Your task to perform on an android device: remove spam from my inbox in the gmail app Image 0: 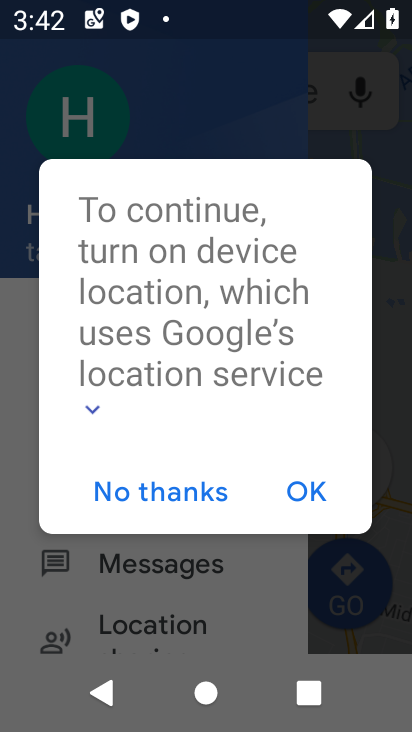
Step 0: press home button
Your task to perform on an android device: remove spam from my inbox in the gmail app Image 1: 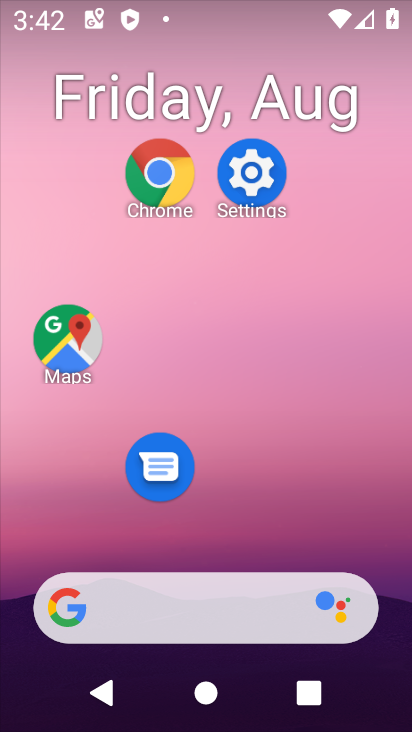
Step 1: drag from (250, 515) to (203, 13)
Your task to perform on an android device: remove spam from my inbox in the gmail app Image 2: 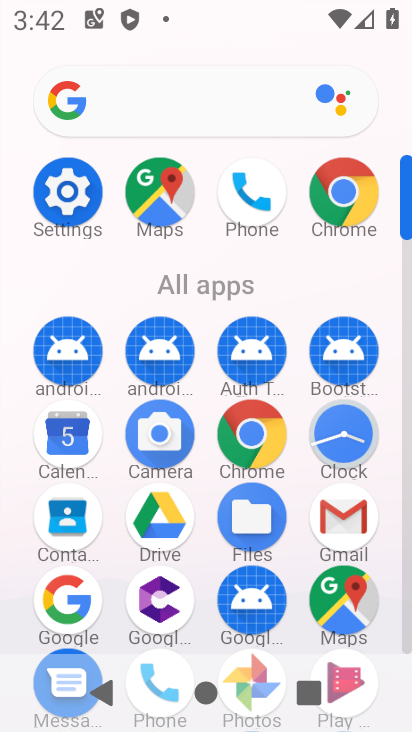
Step 2: click (344, 509)
Your task to perform on an android device: remove spam from my inbox in the gmail app Image 3: 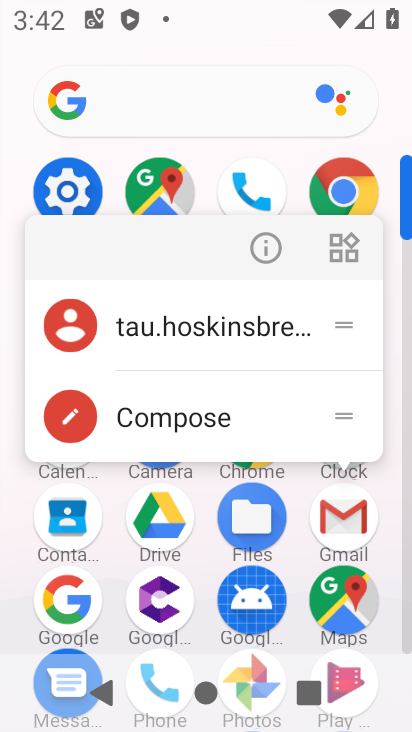
Step 3: click (346, 524)
Your task to perform on an android device: remove spam from my inbox in the gmail app Image 4: 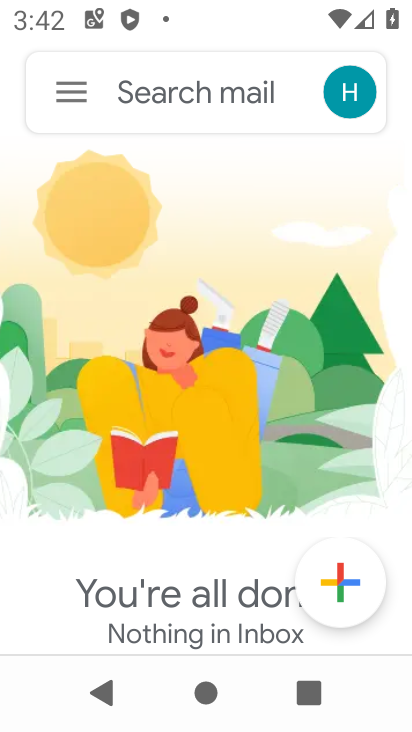
Step 4: click (65, 100)
Your task to perform on an android device: remove spam from my inbox in the gmail app Image 5: 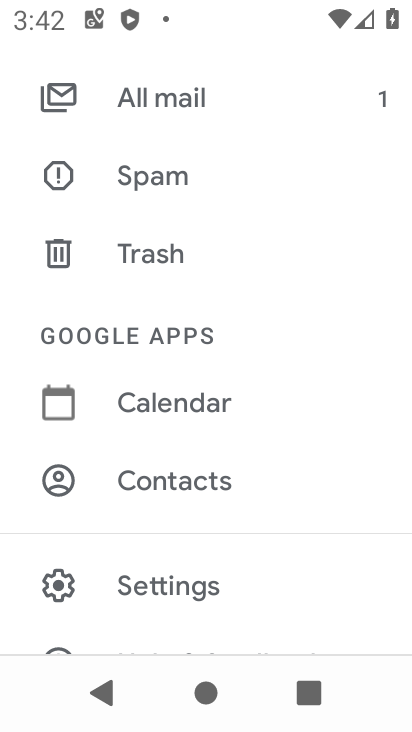
Step 5: click (135, 171)
Your task to perform on an android device: remove spam from my inbox in the gmail app Image 6: 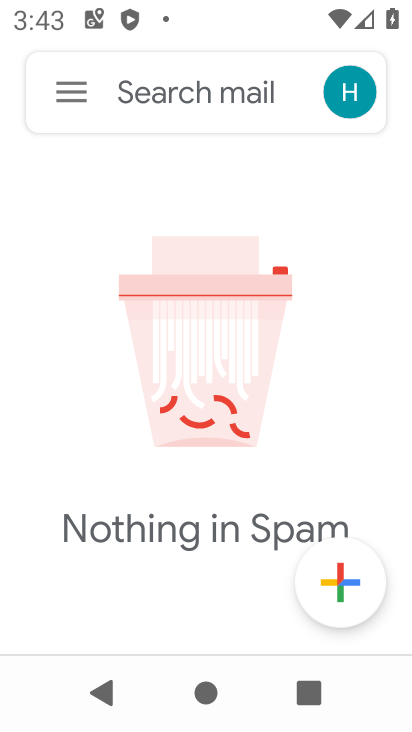
Step 6: task complete